Your task to perform on an android device: Show me popular games on the Play Store Image 0: 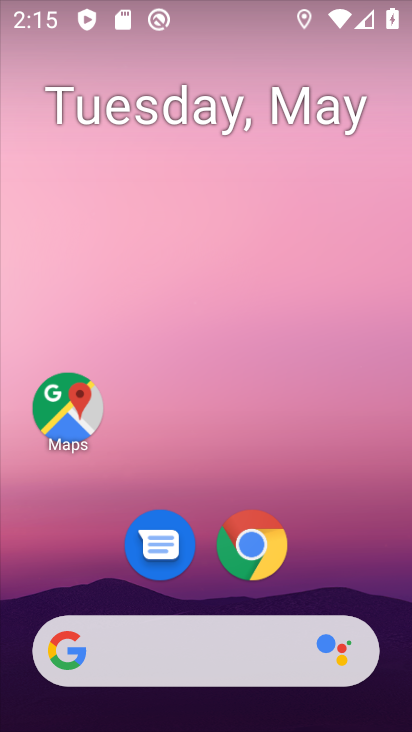
Step 0: drag from (203, 572) to (265, 33)
Your task to perform on an android device: Show me popular games on the Play Store Image 1: 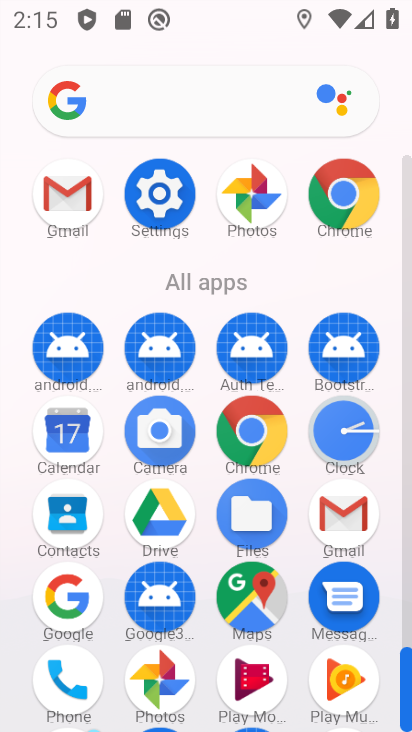
Step 1: drag from (218, 552) to (279, 242)
Your task to perform on an android device: Show me popular games on the Play Store Image 2: 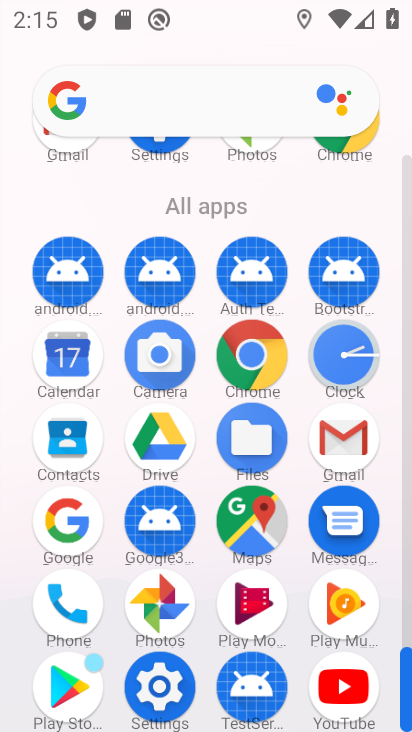
Step 2: click (75, 675)
Your task to perform on an android device: Show me popular games on the Play Store Image 3: 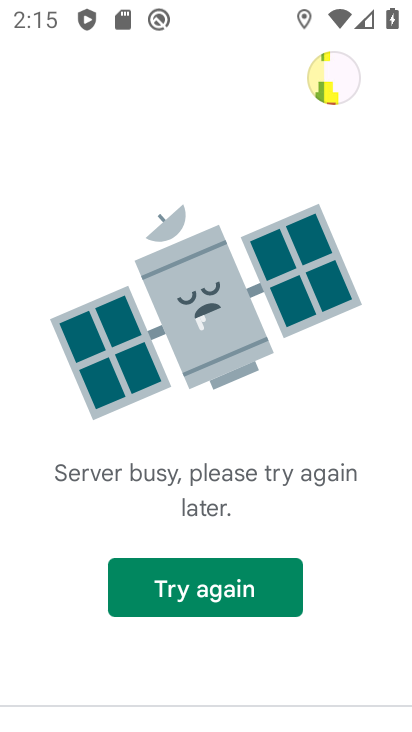
Step 3: click (196, 605)
Your task to perform on an android device: Show me popular games on the Play Store Image 4: 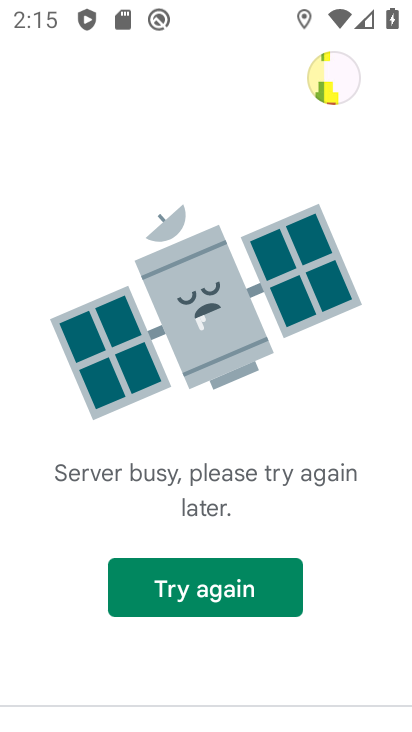
Step 4: task complete